Your task to perform on an android device: turn off smart reply in the gmail app Image 0: 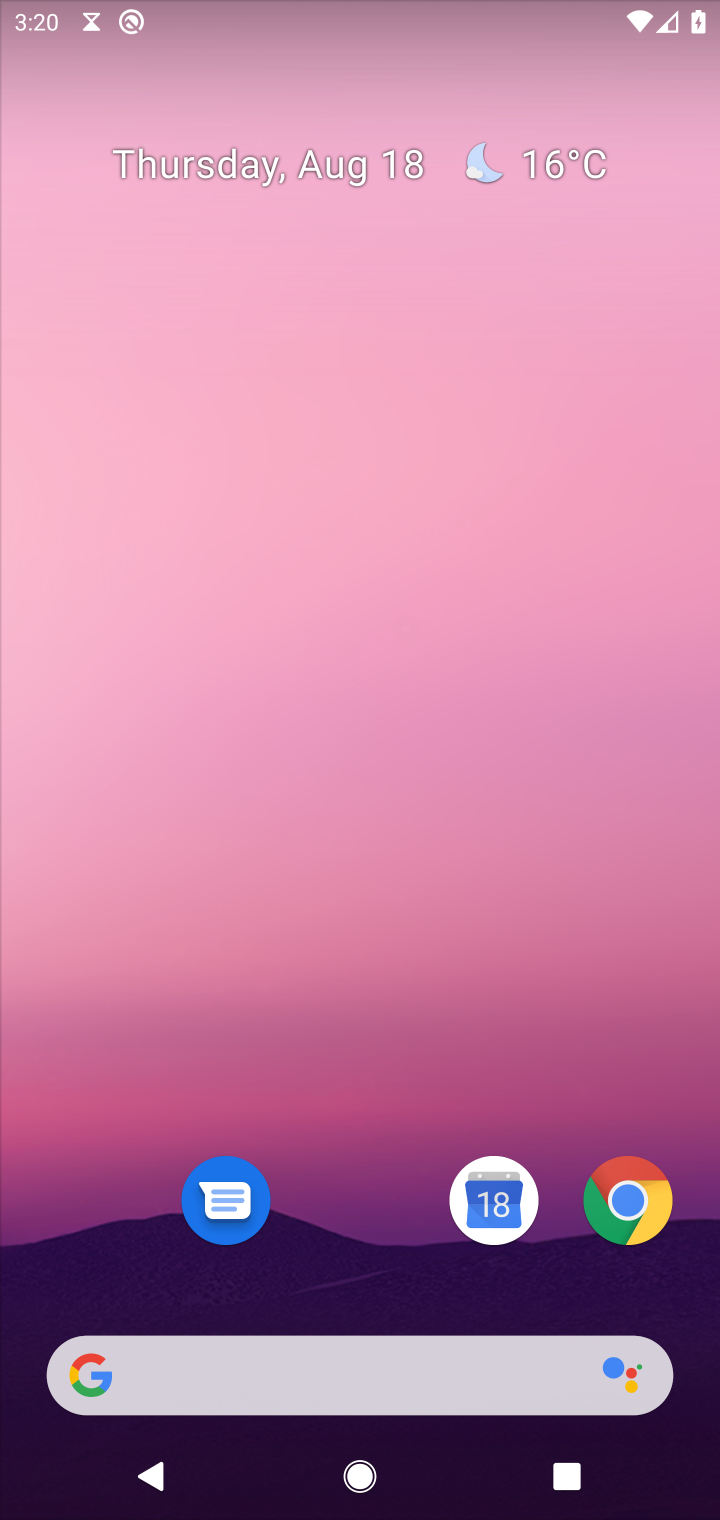
Step 0: press home button
Your task to perform on an android device: turn off smart reply in the gmail app Image 1: 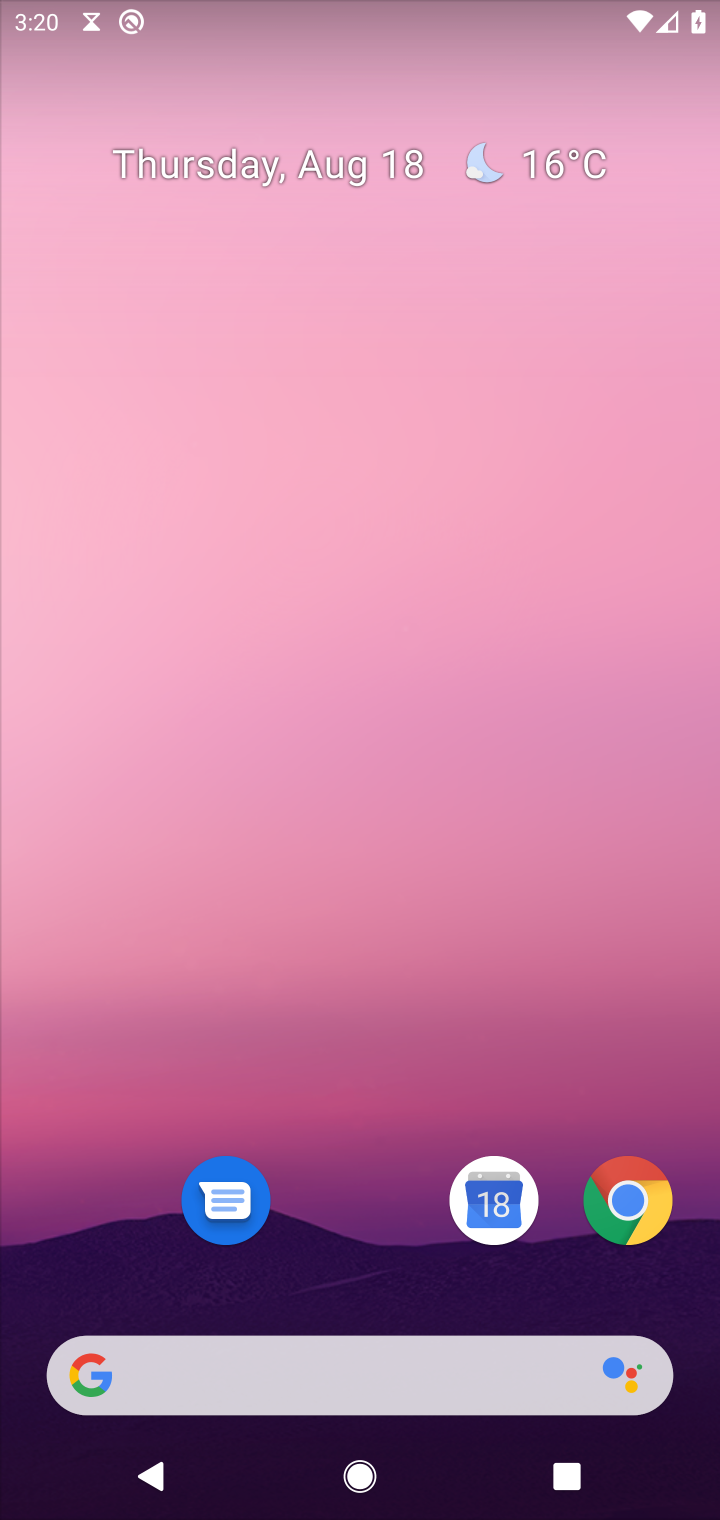
Step 1: drag from (383, 1223) to (502, 21)
Your task to perform on an android device: turn off smart reply in the gmail app Image 2: 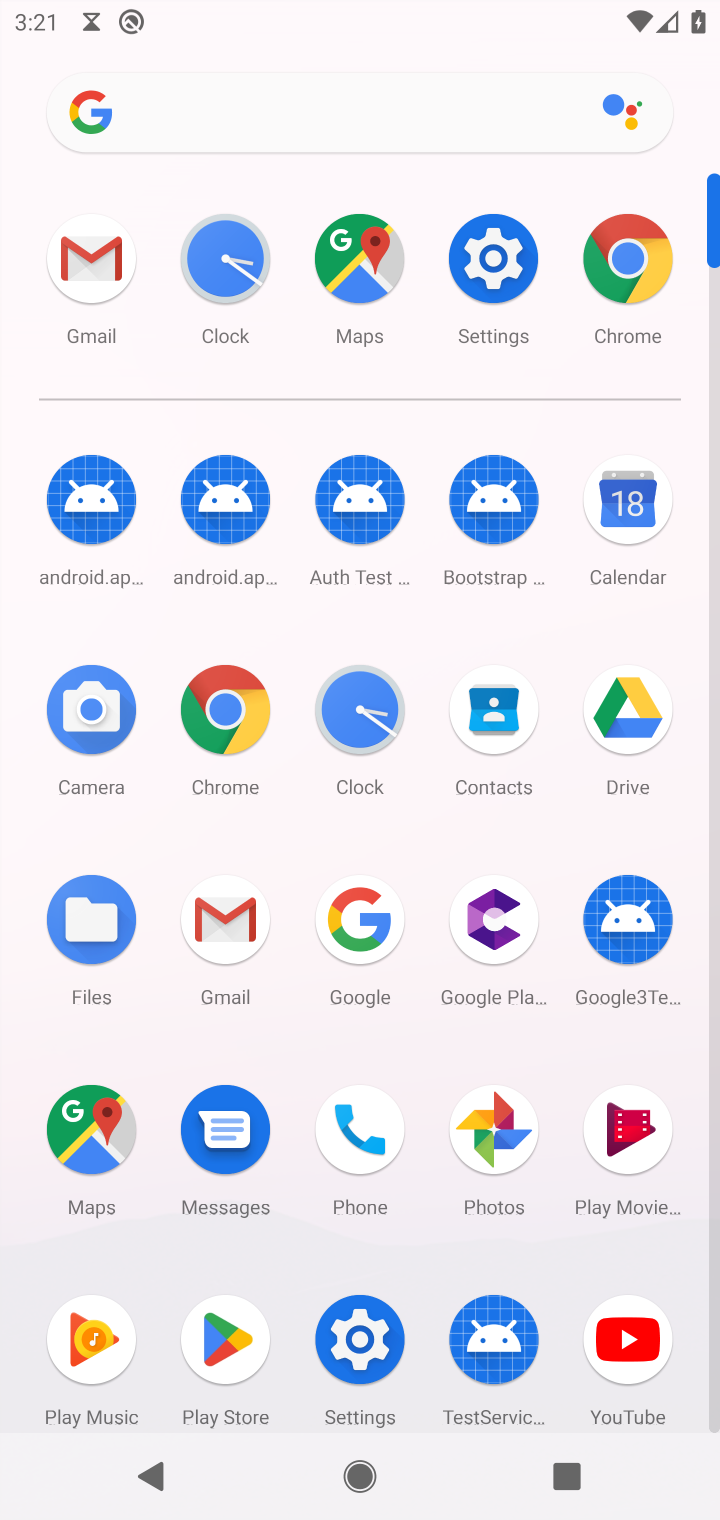
Step 2: click (238, 905)
Your task to perform on an android device: turn off smart reply in the gmail app Image 3: 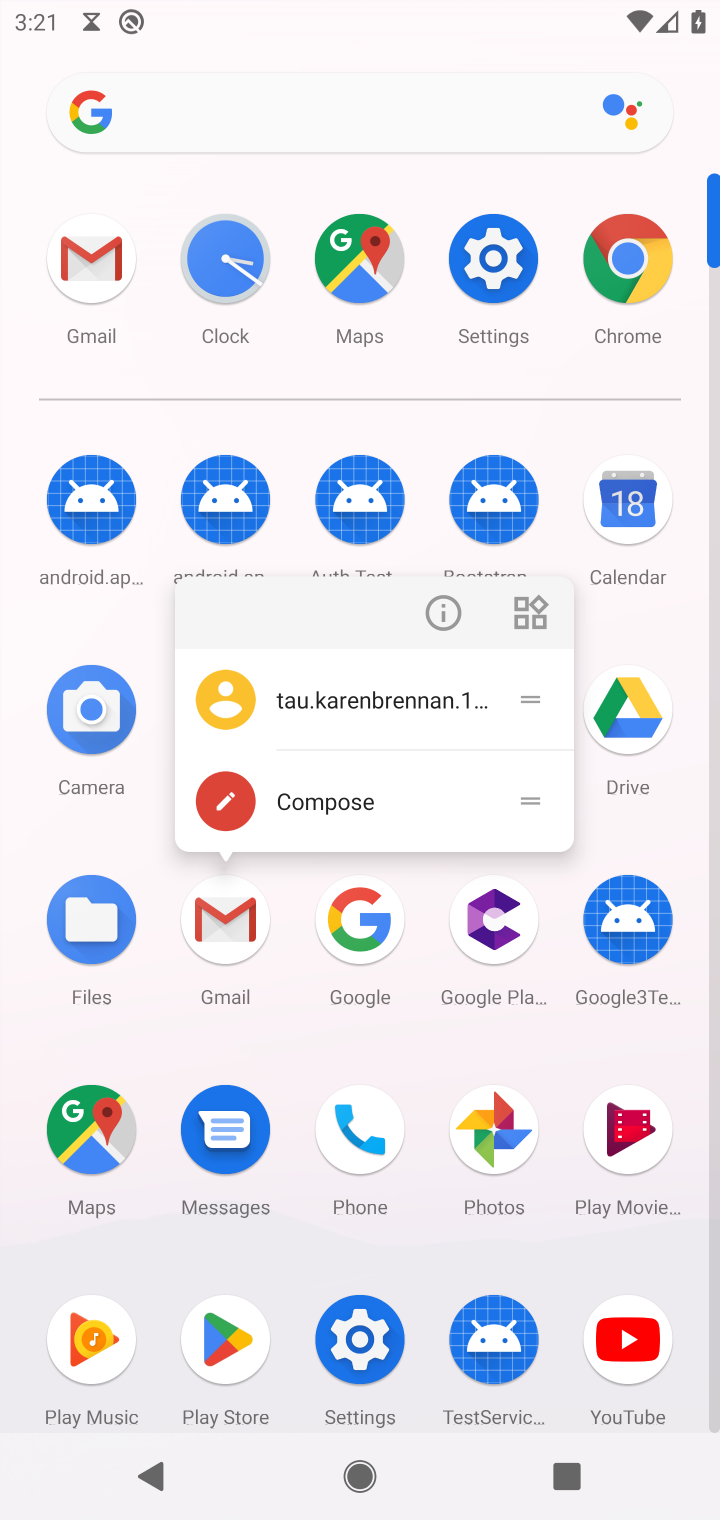
Step 3: click (223, 921)
Your task to perform on an android device: turn off smart reply in the gmail app Image 4: 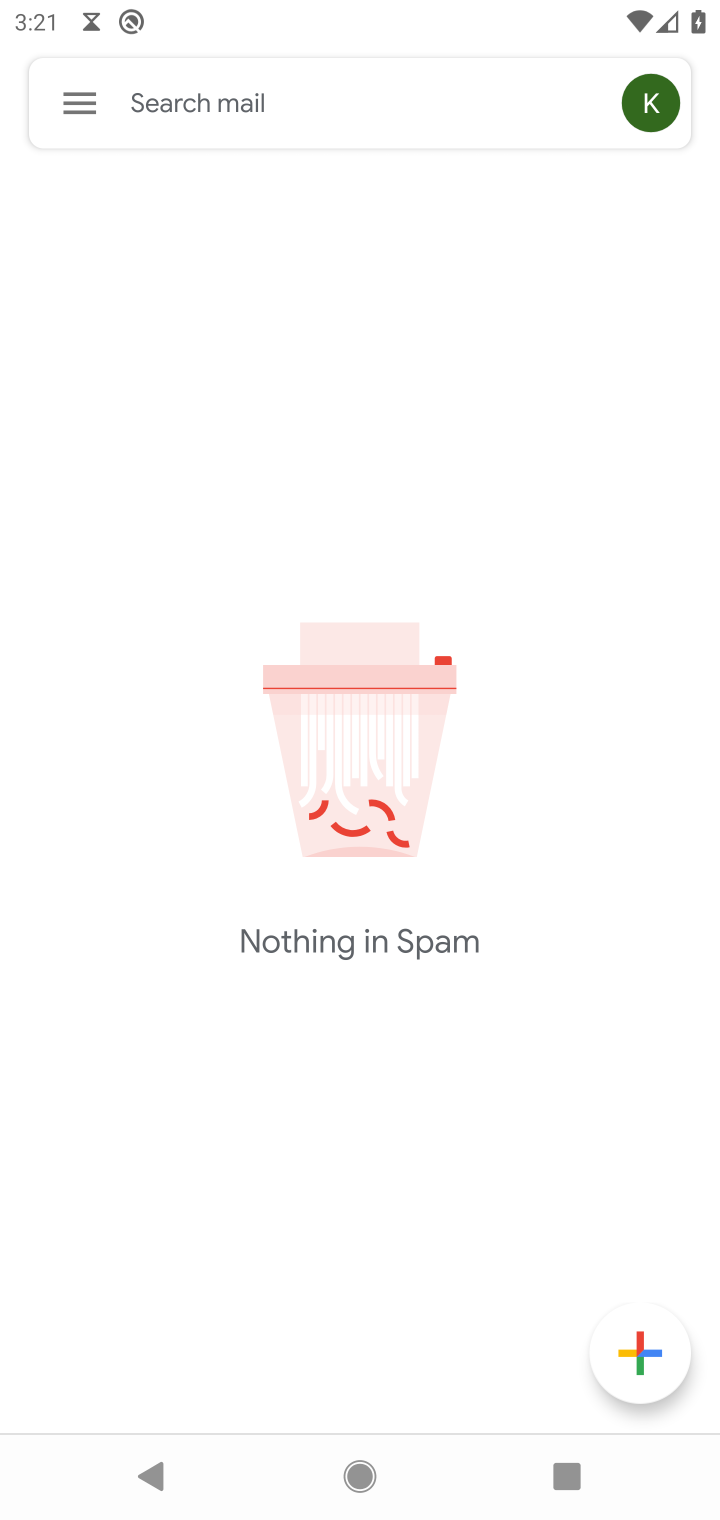
Step 4: click (78, 100)
Your task to perform on an android device: turn off smart reply in the gmail app Image 5: 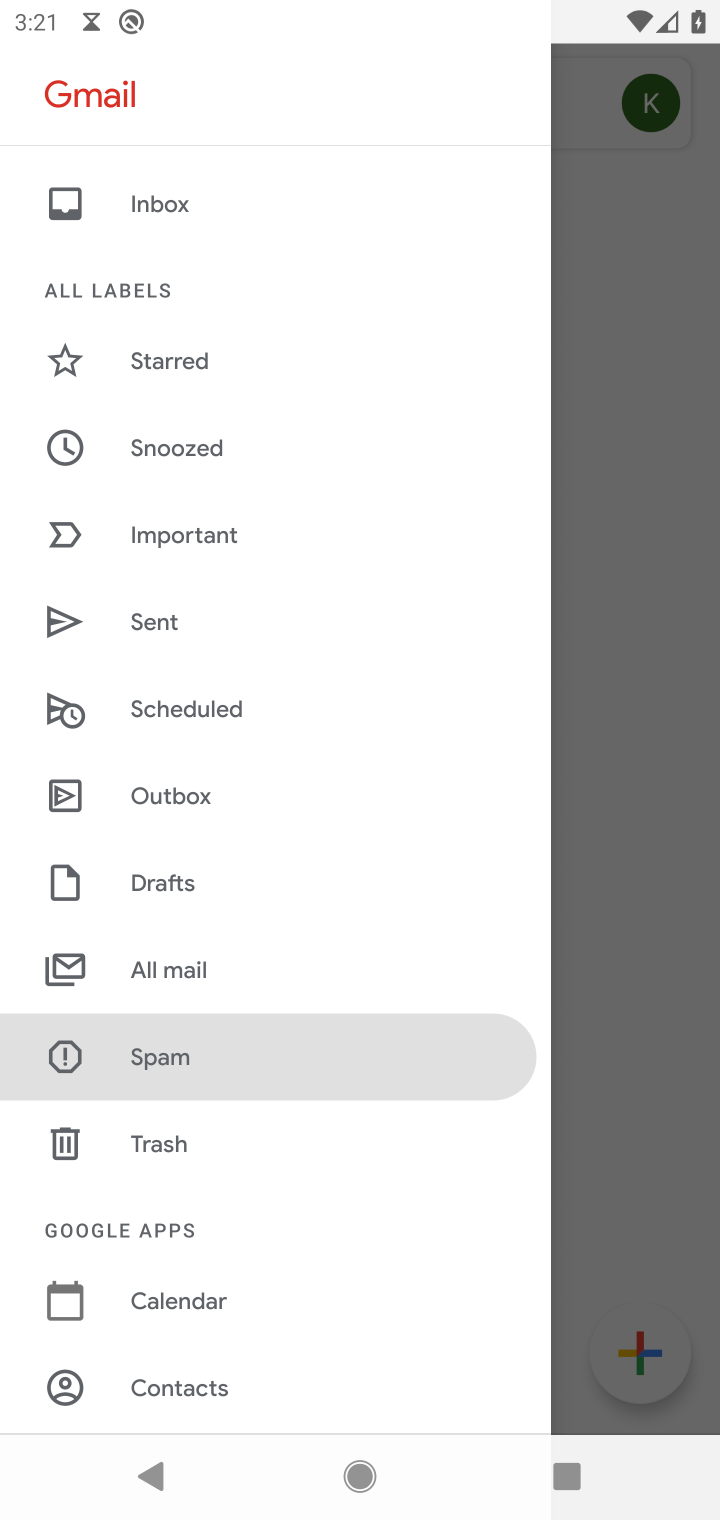
Step 5: drag from (250, 1340) to (347, 442)
Your task to perform on an android device: turn off smart reply in the gmail app Image 6: 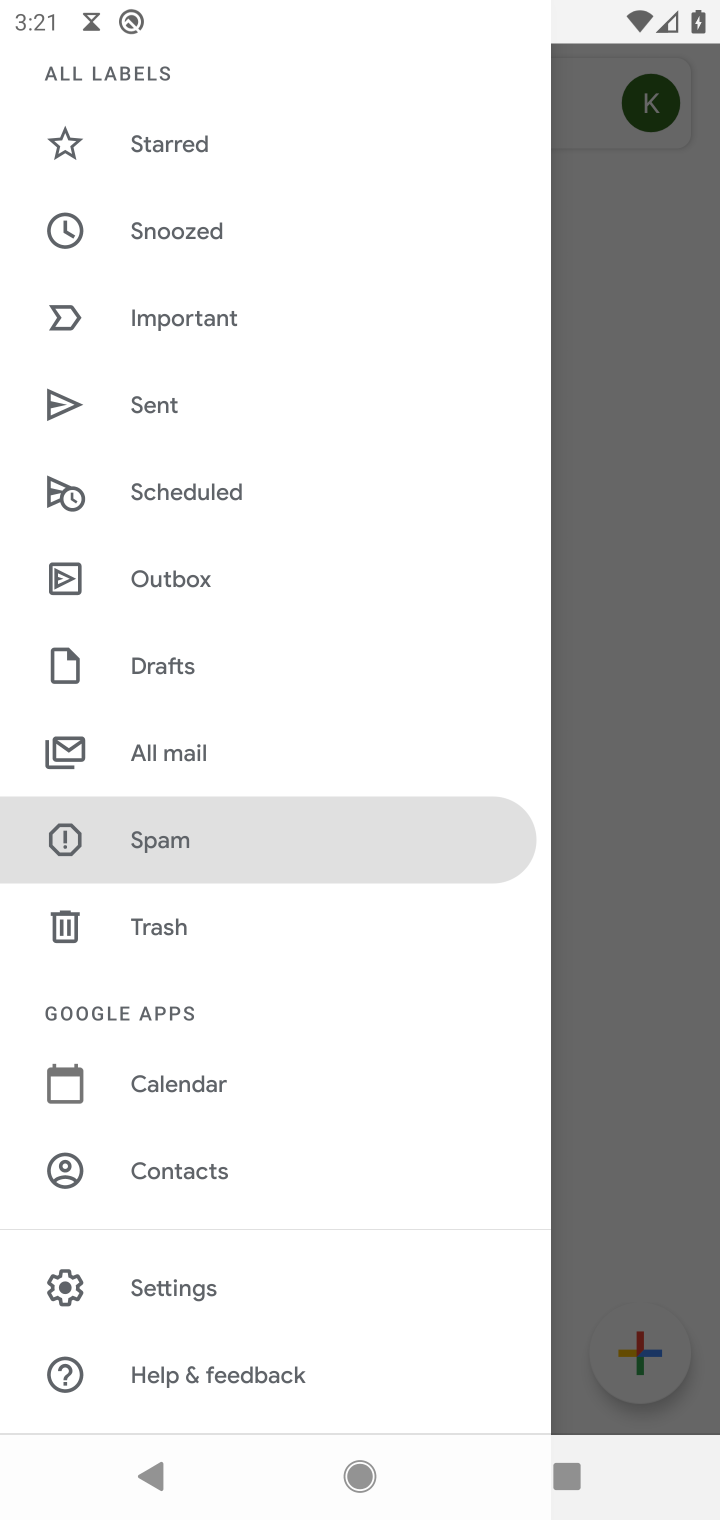
Step 6: click (188, 1288)
Your task to perform on an android device: turn off smart reply in the gmail app Image 7: 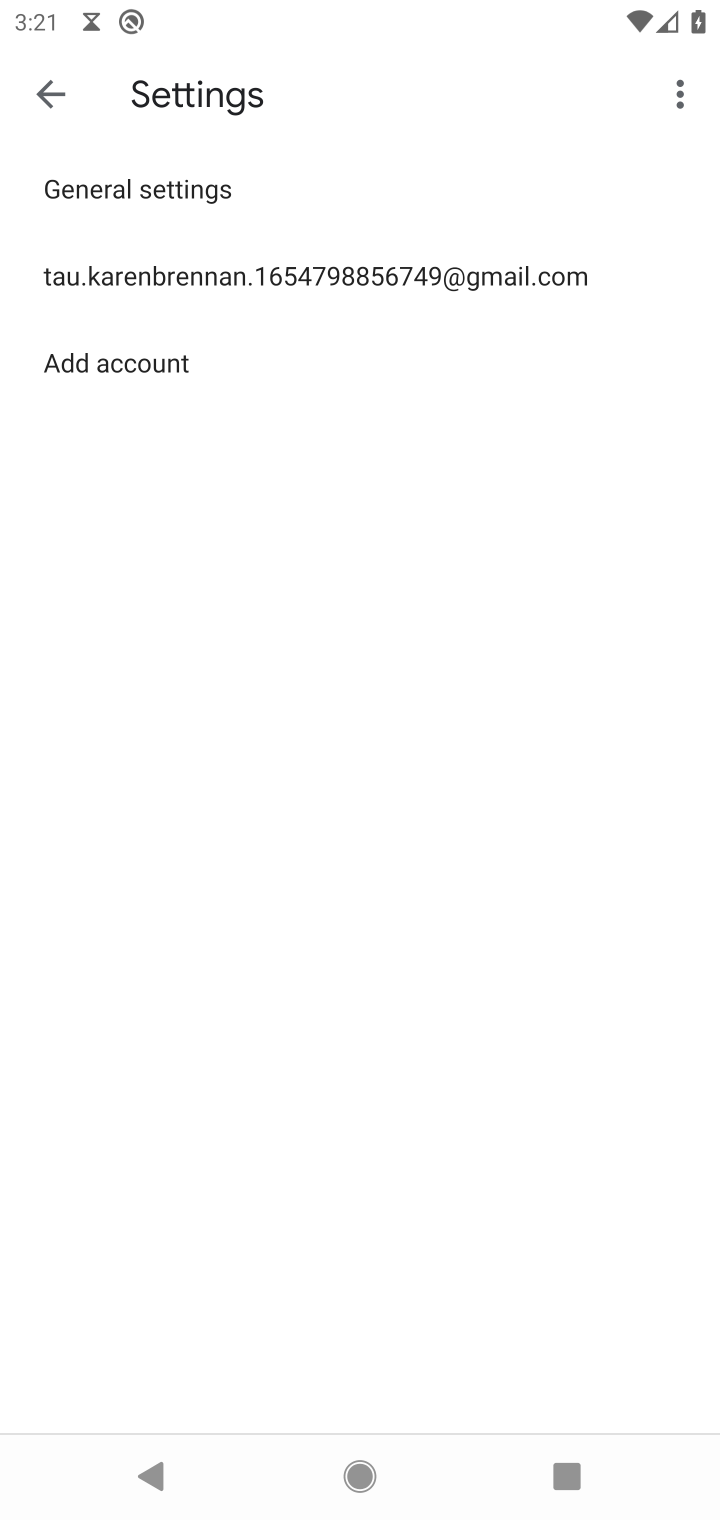
Step 7: click (372, 282)
Your task to perform on an android device: turn off smart reply in the gmail app Image 8: 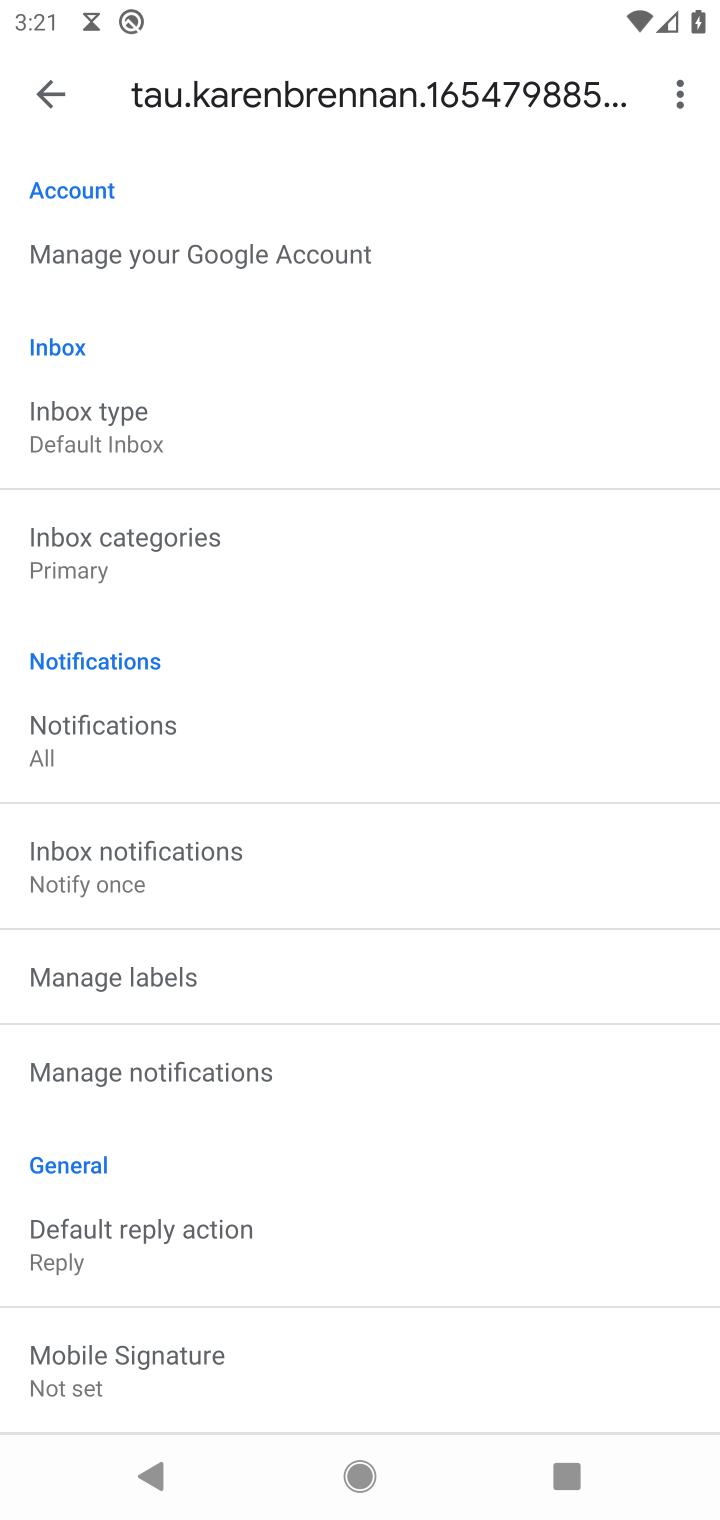
Step 8: drag from (287, 1247) to (323, 325)
Your task to perform on an android device: turn off smart reply in the gmail app Image 9: 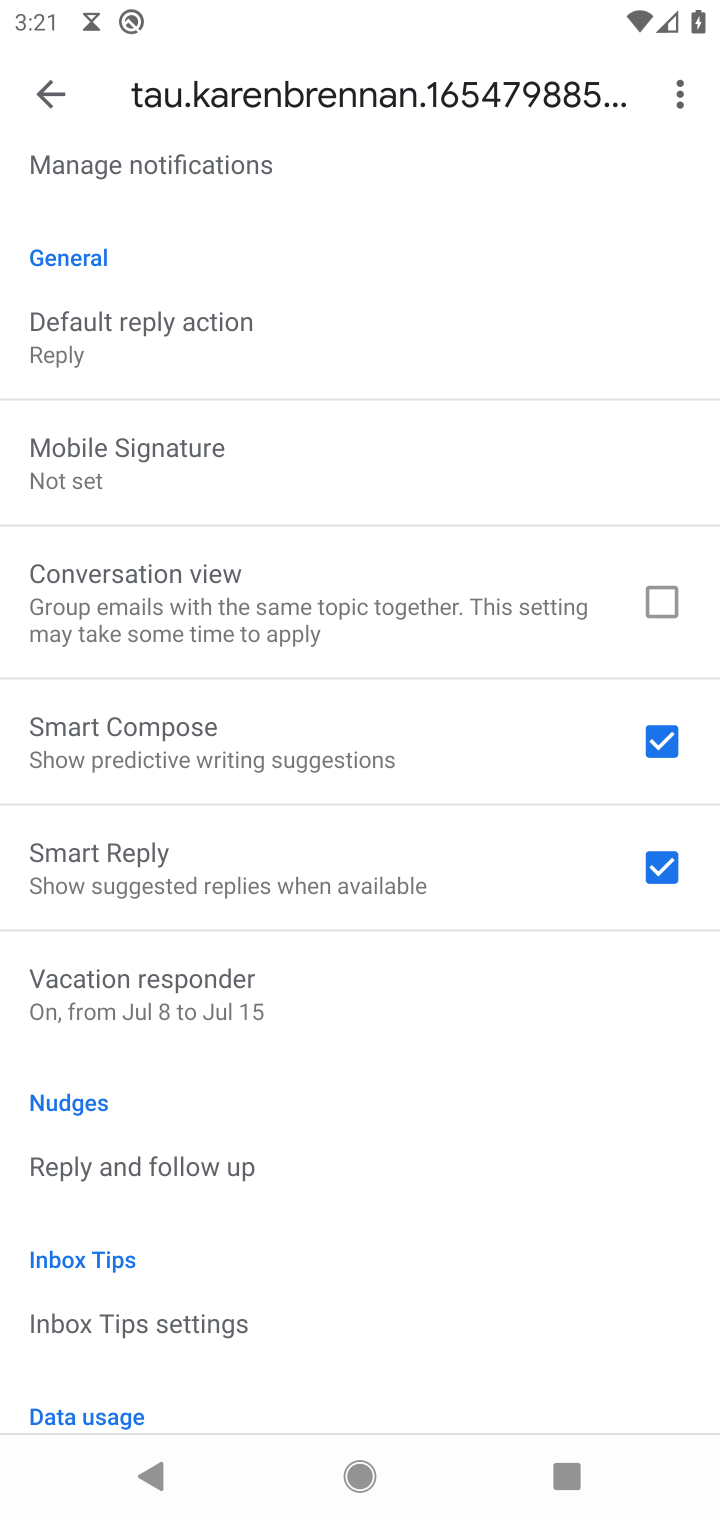
Step 9: click (466, 860)
Your task to perform on an android device: turn off smart reply in the gmail app Image 10: 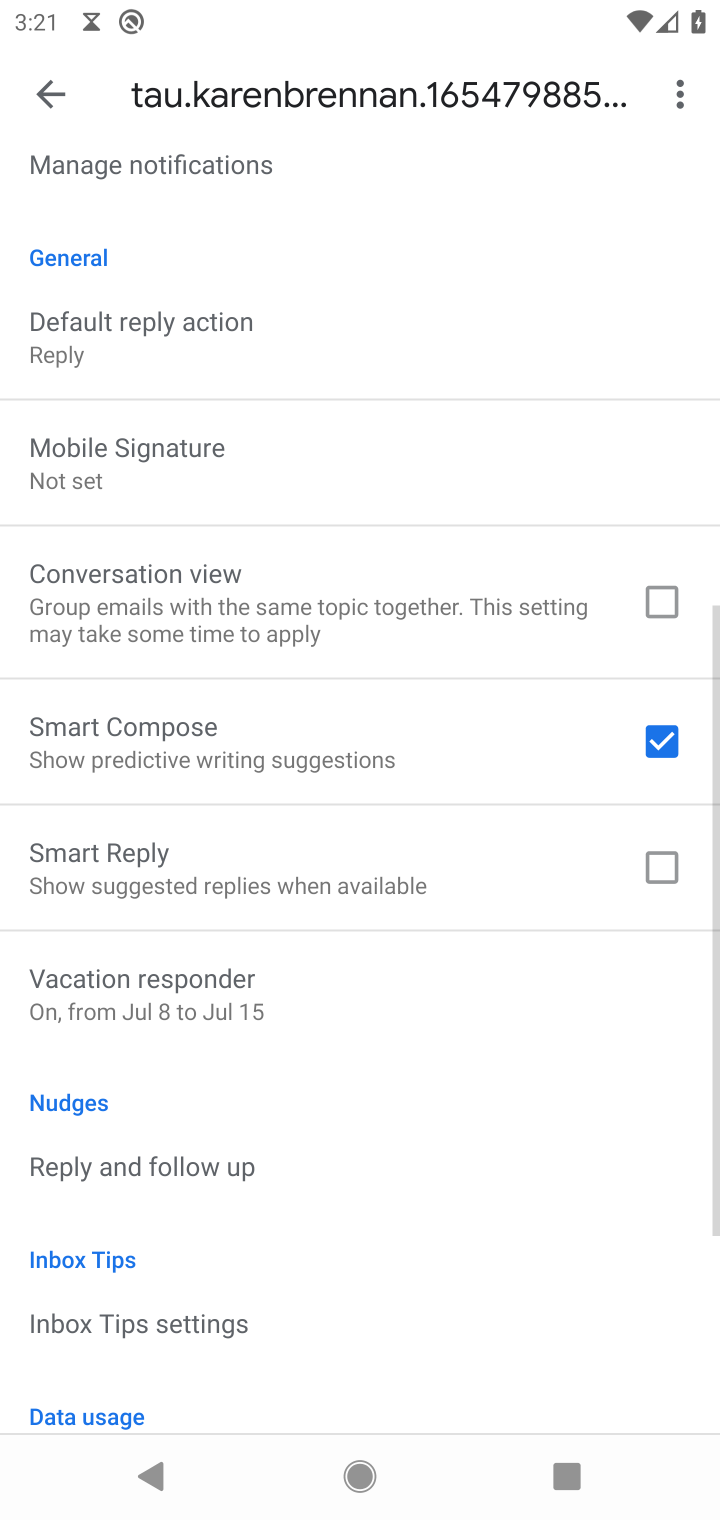
Step 10: task complete